Your task to perform on an android device: change keyboard looks Image 0: 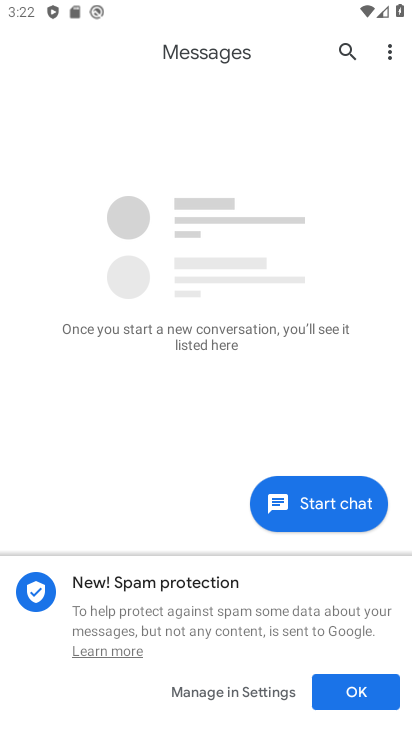
Step 0: press home button
Your task to perform on an android device: change keyboard looks Image 1: 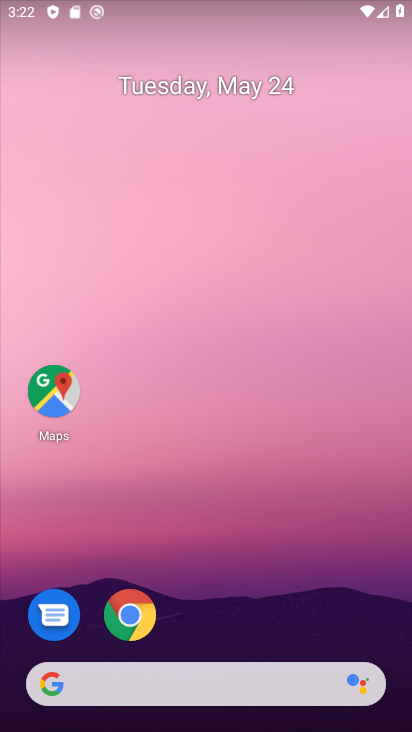
Step 1: drag from (192, 728) to (186, 274)
Your task to perform on an android device: change keyboard looks Image 2: 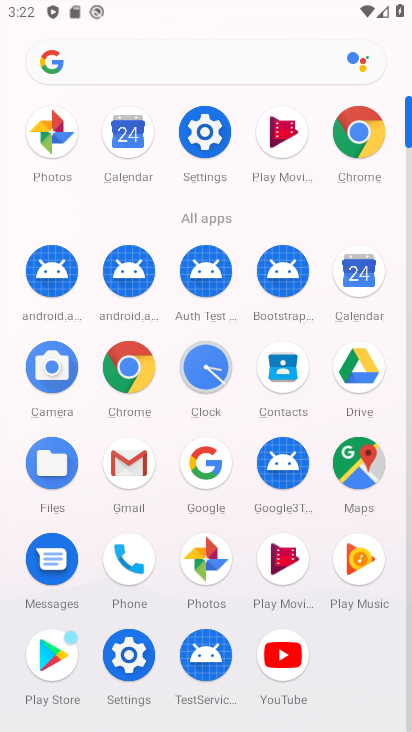
Step 2: click (207, 132)
Your task to perform on an android device: change keyboard looks Image 3: 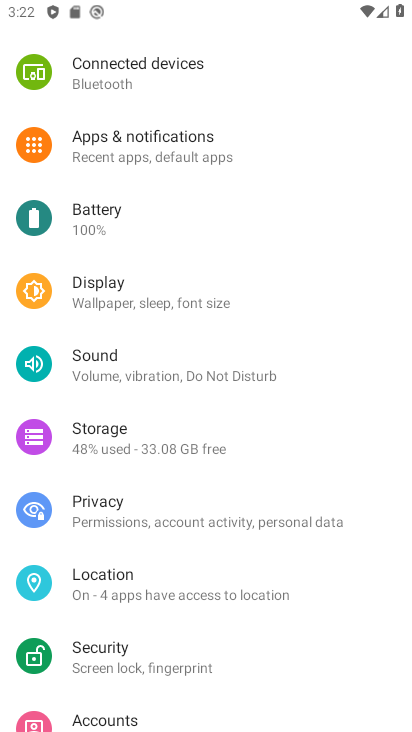
Step 3: drag from (158, 696) to (164, 273)
Your task to perform on an android device: change keyboard looks Image 4: 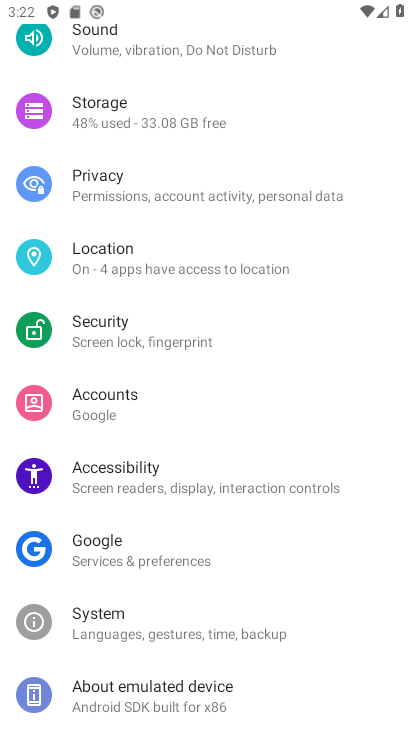
Step 4: drag from (191, 673) to (194, 223)
Your task to perform on an android device: change keyboard looks Image 5: 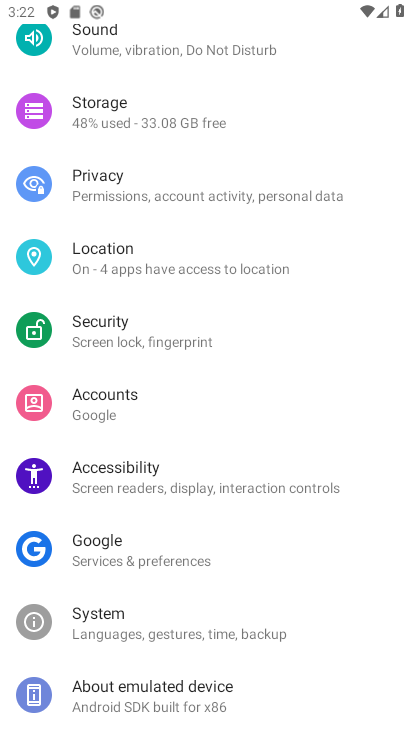
Step 5: click (121, 621)
Your task to perform on an android device: change keyboard looks Image 6: 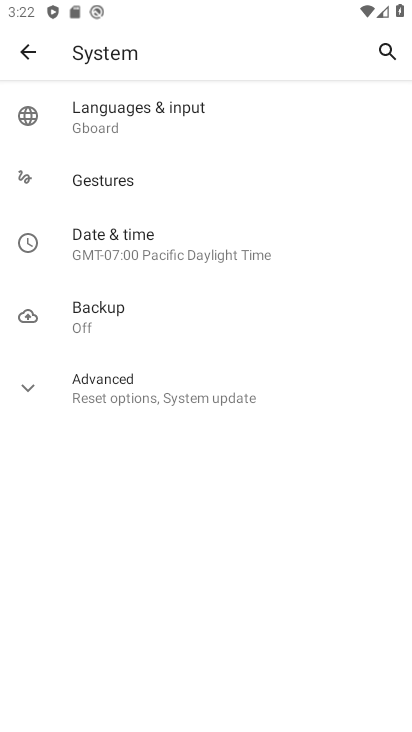
Step 6: click (90, 105)
Your task to perform on an android device: change keyboard looks Image 7: 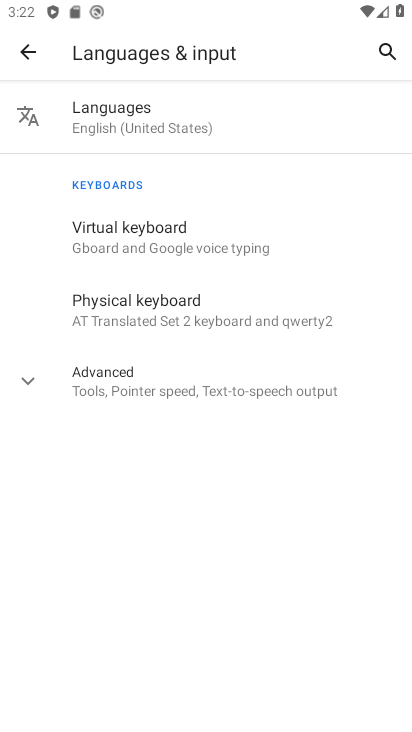
Step 7: click (118, 229)
Your task to perform on an android device: change keyboard looks Image 8: 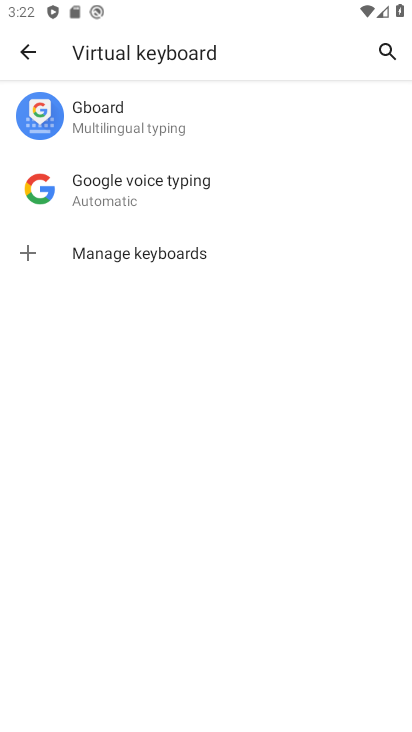
Step 8: click (112, 126)
Your task to perform on an android device: change keyboard looks Image 9: 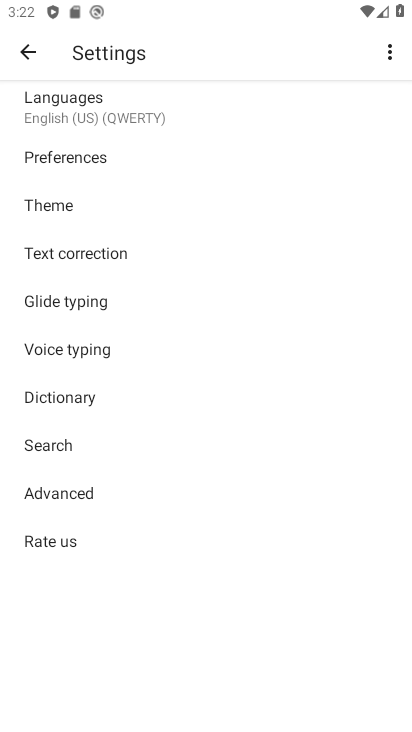
Step 9: click (59, 202)
Your task to perform on an android device: change keyboard looks Image 10: 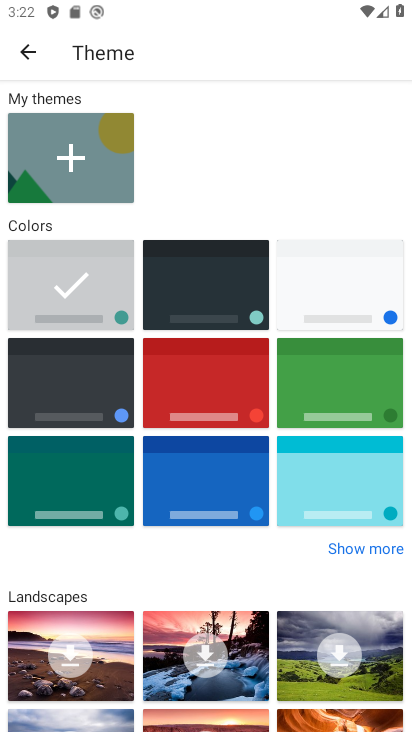
Step 10: click (204, 284)
Your task to perform on an android device: change keyboard looks Image 11: 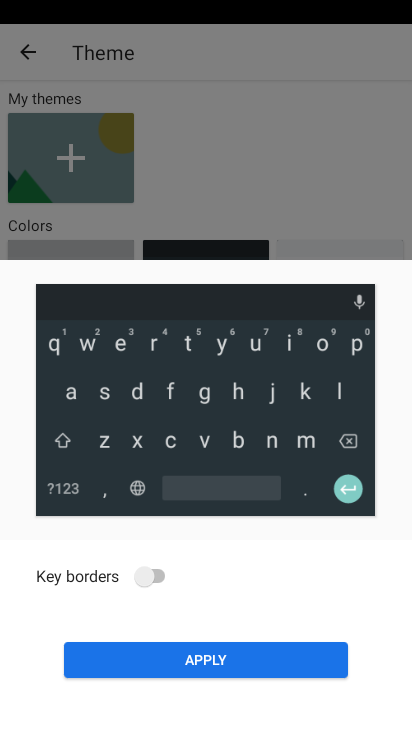
Step 11: click (159, 570)
Your task to perform on an android device: change keyboard looks Image 12: 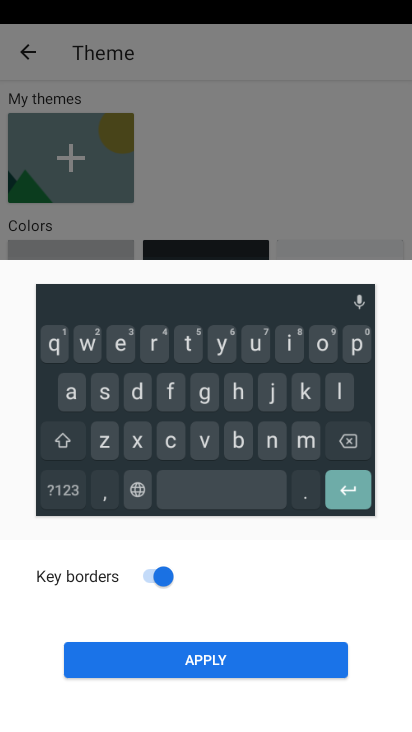
Step 12: click (215, 658)
Your task to perform on an android device: change keyboard looks Image 13: 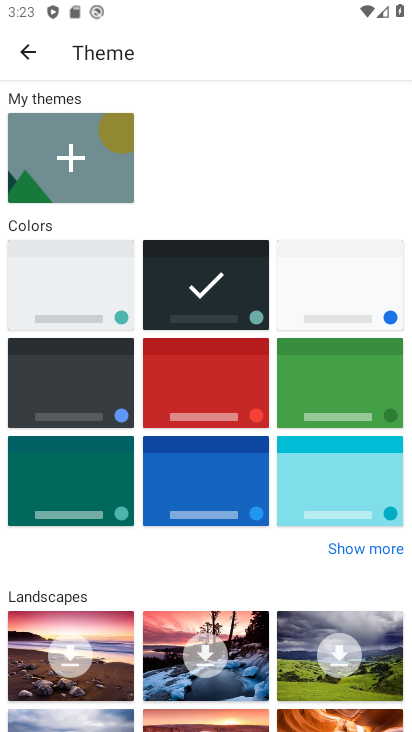
Step 13: task complete